Your task to perform on an android device: Set the phone to "Do not disturb". Image 0: 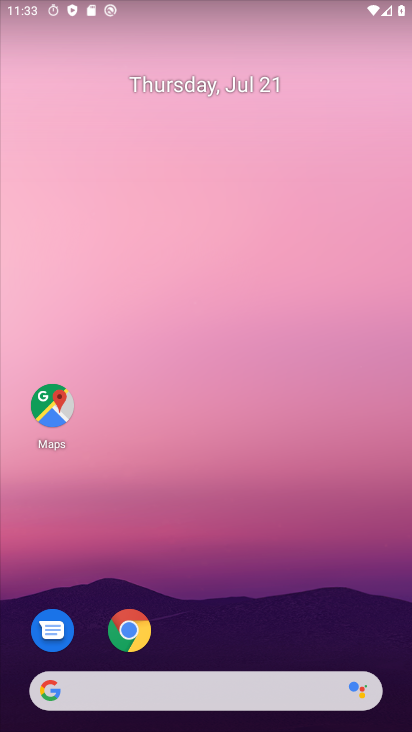
Step 0: press home button
Your task to perform on an android device: Set the phone to "Do not disturb". Image 1: 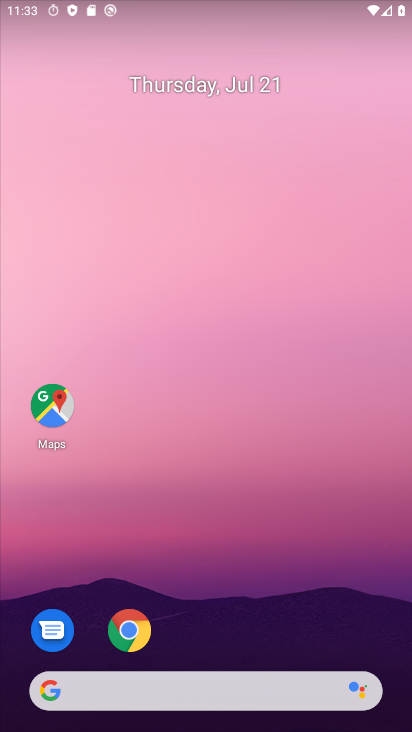
Step 1: drag from (168, 0) to (165, 377)
Your task to perform on an android device: Set the phone to "Do not disturb". Image 2: 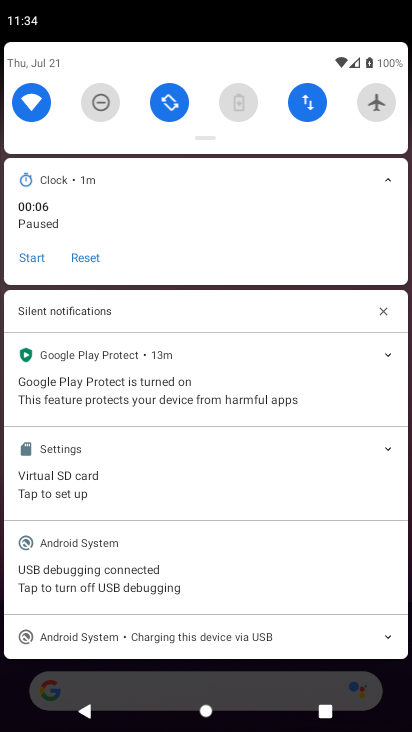
Step 2: click (100, 100)
Your task to perform on an android device: Set the phone to "Do not disturb". Image 3: 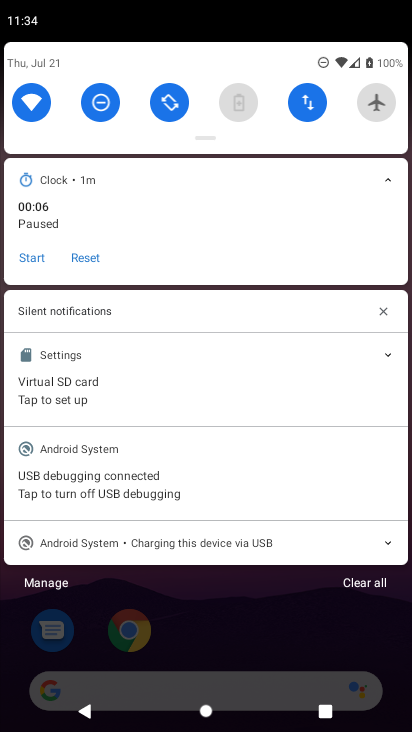
Step 3: task complete